Your task to perform on an android device: Open Android settings Image 0: 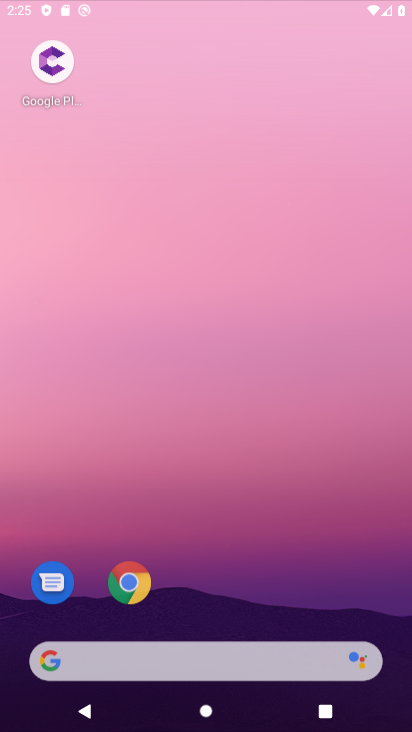
Step 0: click (235, 431)
Your task to perform on an android device: Open Android settings Image 1: 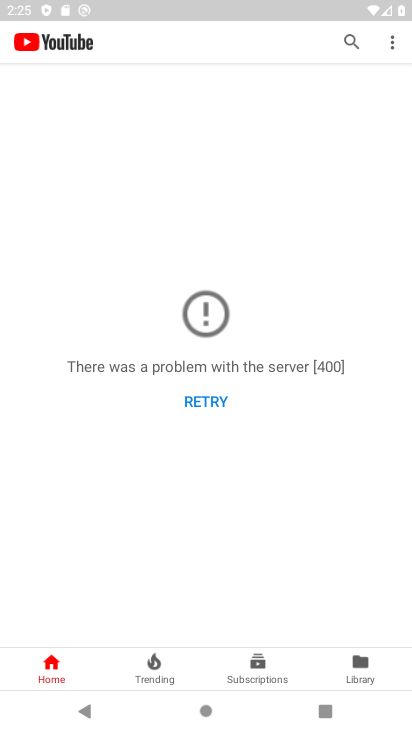
Step 1: press home button
Your task to perform on an android device: Open Android settings Image 2: 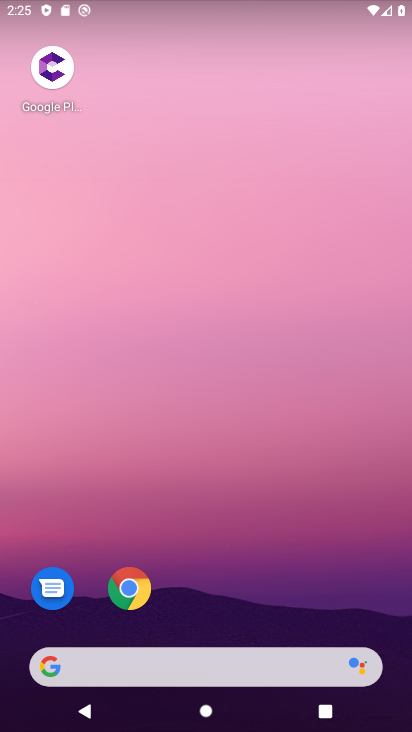
Step 2: drag from (231, 714) to (231, 401)
Your task to perform on an android device: Open Android settings Image 3: 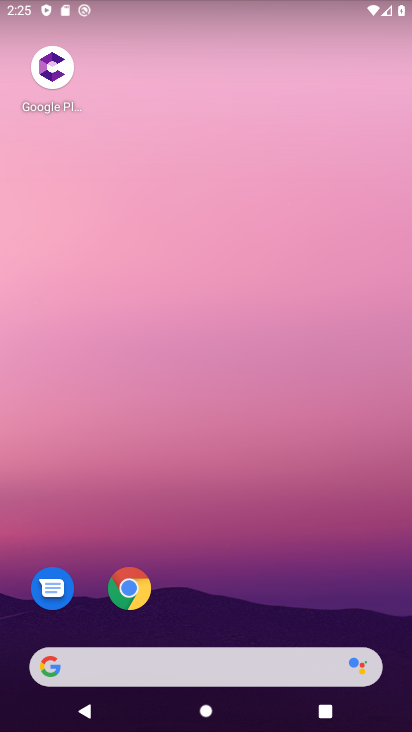
Step 3: drag from (229, 720) to (234, 2)
Your task to perform on an android device: Open Android settings Image 4: 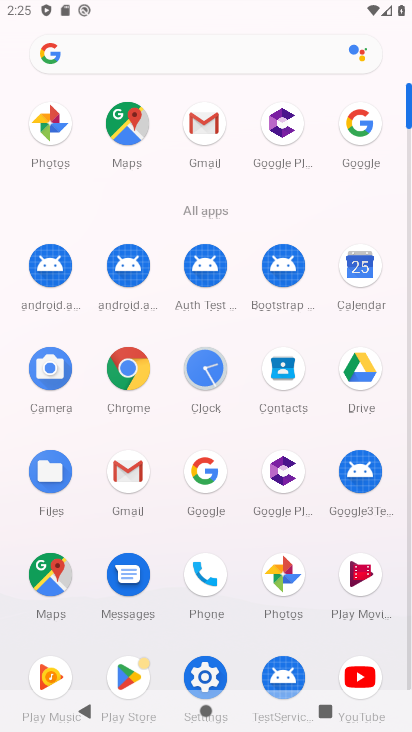
Step 4: click (199, 667)
Your task to perform on an android device: Open Android settings Image 5: 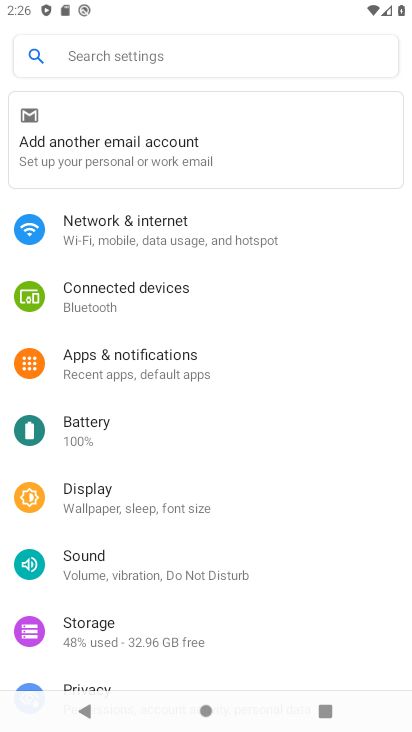
Step 5: click (68, 463)
Your task to perform on an android device: Open Android settings Image 6: 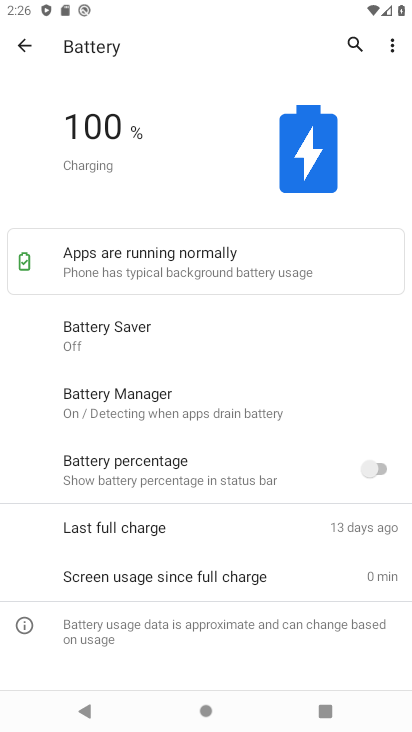
Step 6: click (19, 37)
Your task to perform on an android device: Open Android settings Image 7: 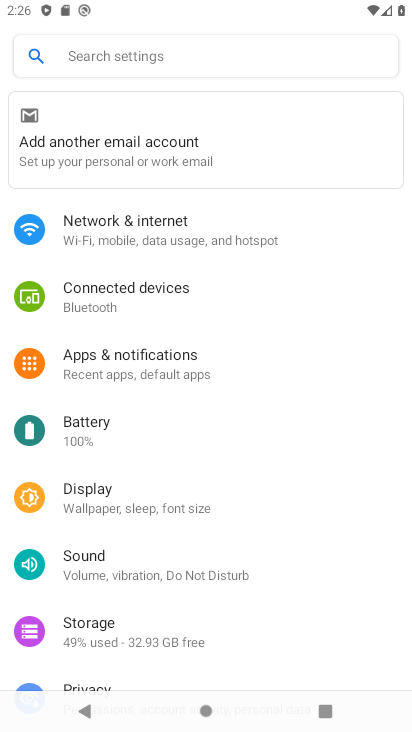
Step 7: task complete